Your task to perform on an android device: Show me the alarms in the clock app Image 0: 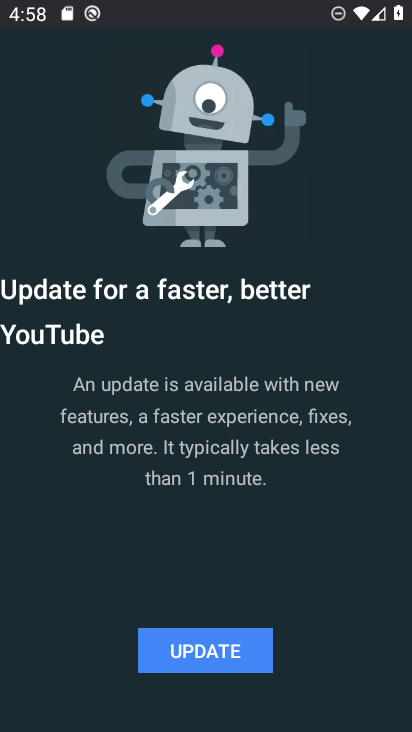
Step 0: press back button
Your task to perform on an android device: Show me the alarms in the clock app Image 1: 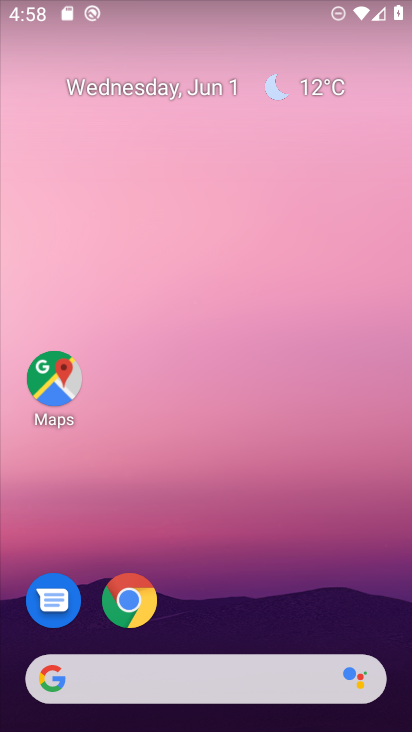
Step 1: drag from (272, 578) to (191, 59)
Your task to perform on an android device: Show me the alarms in the clock app Image 2: 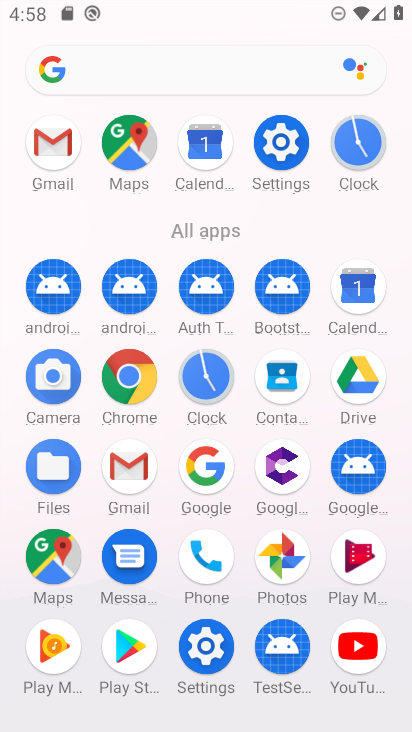
Step 2: click (359, 146)
Your task to perform on an android device: Show me the alarms in the clock app Image 3: 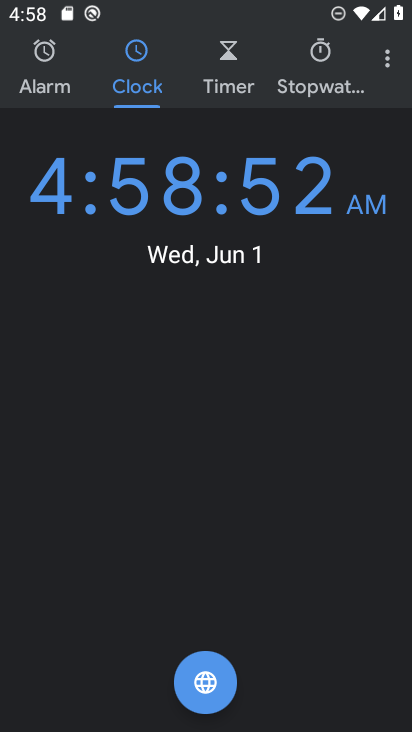
Step 3: click (57, 61)
Your task to perform on an android device: Show me the alarms in the clock app Image 4: 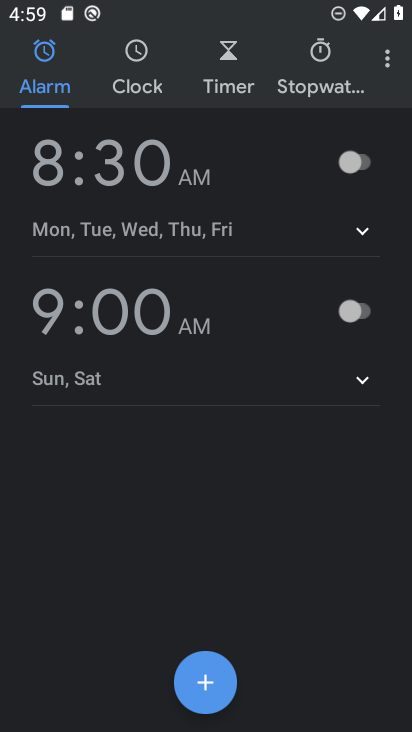
Step 4: task complete